Your task to perform on an android device: How much does the LG TV cost? Image 0: 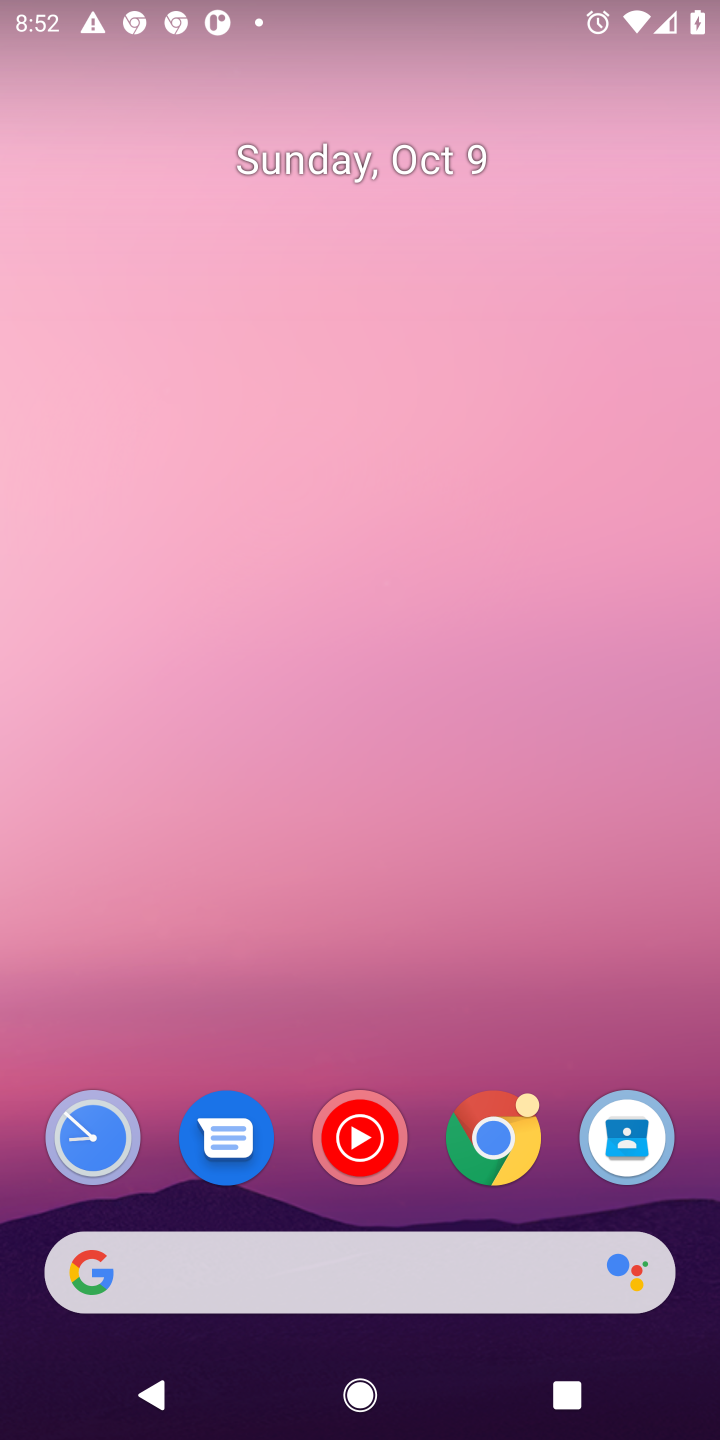
Step 0: drag from (293, 985) to (360, 475)
Your task to perform on an android device: How much does the LG TV cost? Image 1: 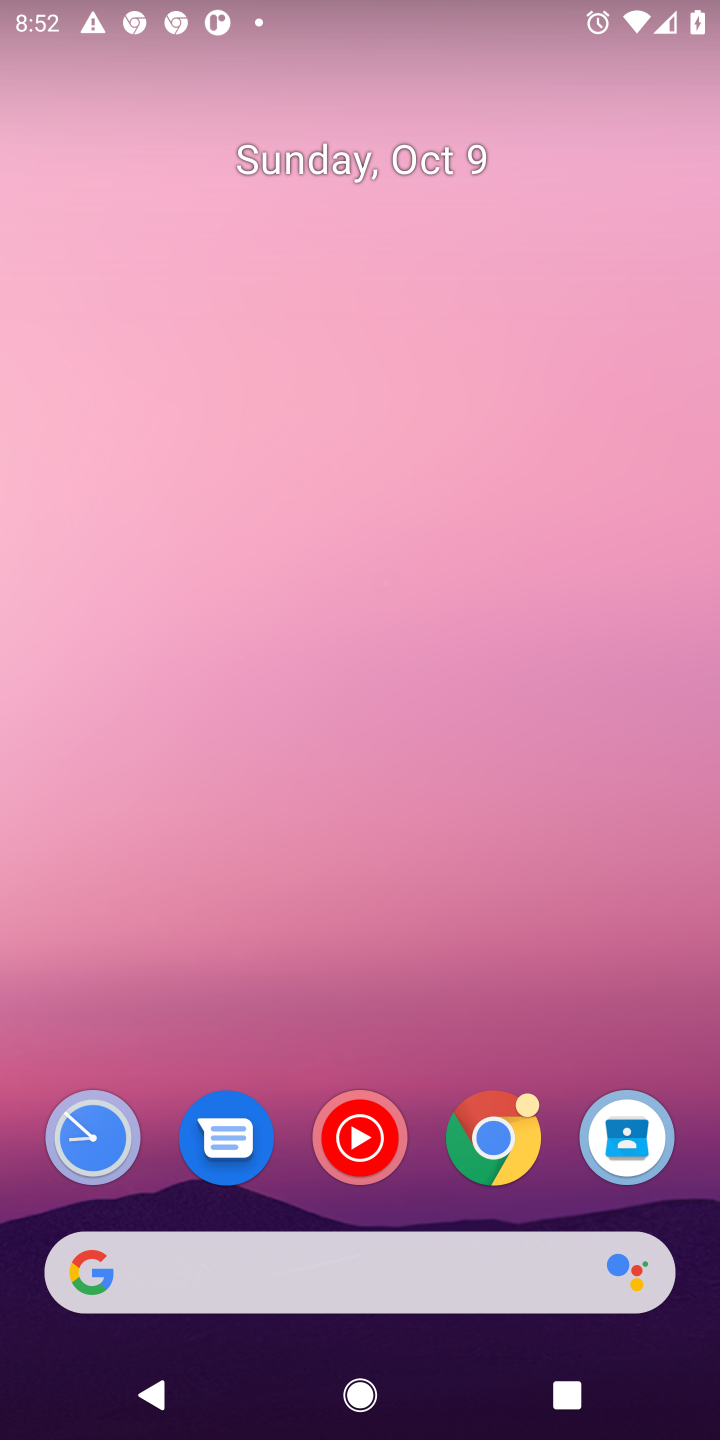
Step 1: drag from (415, 713) to (438, 417)
Your task to perform on an android device: How much does the LG TV cost? Image 2: 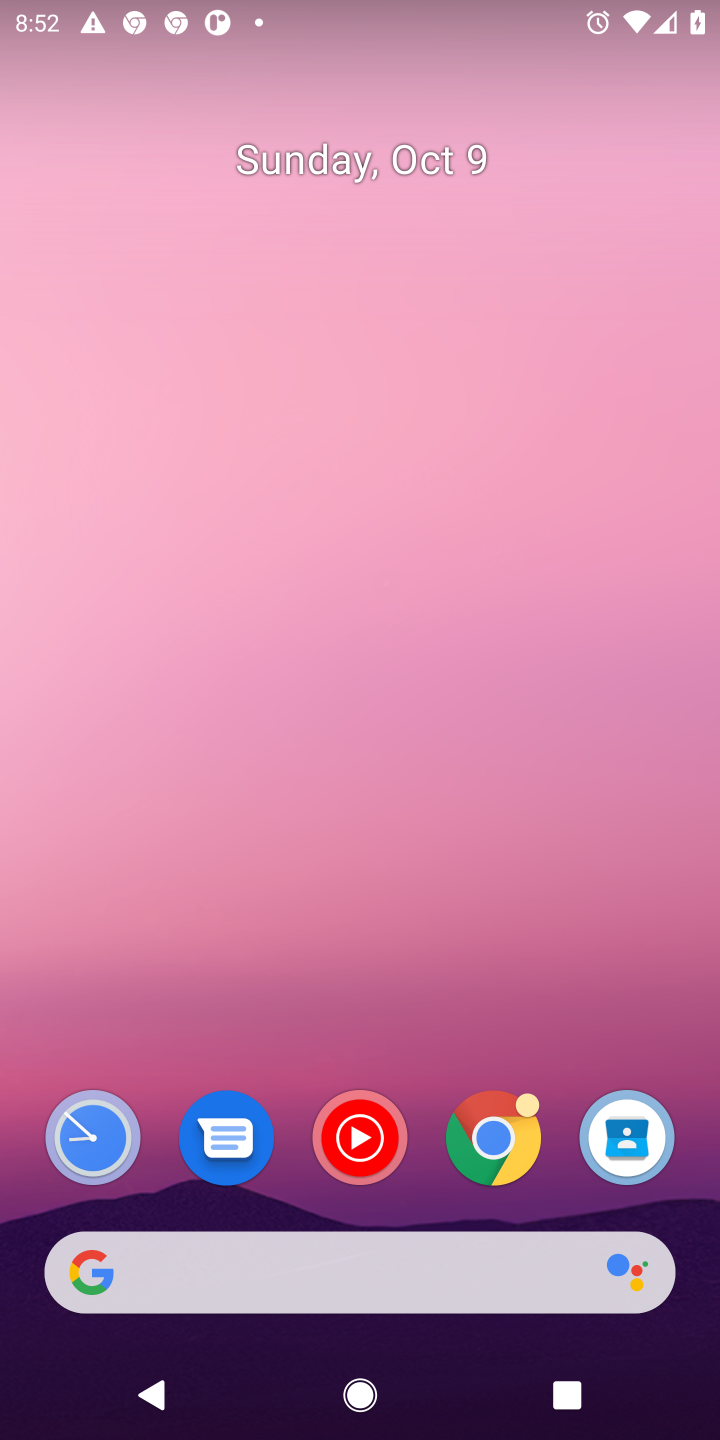
Step 2: drag from (364, 1165) to (460, 471)
Your task to perform on an android device: How much does the LG TV cost? Image 3: 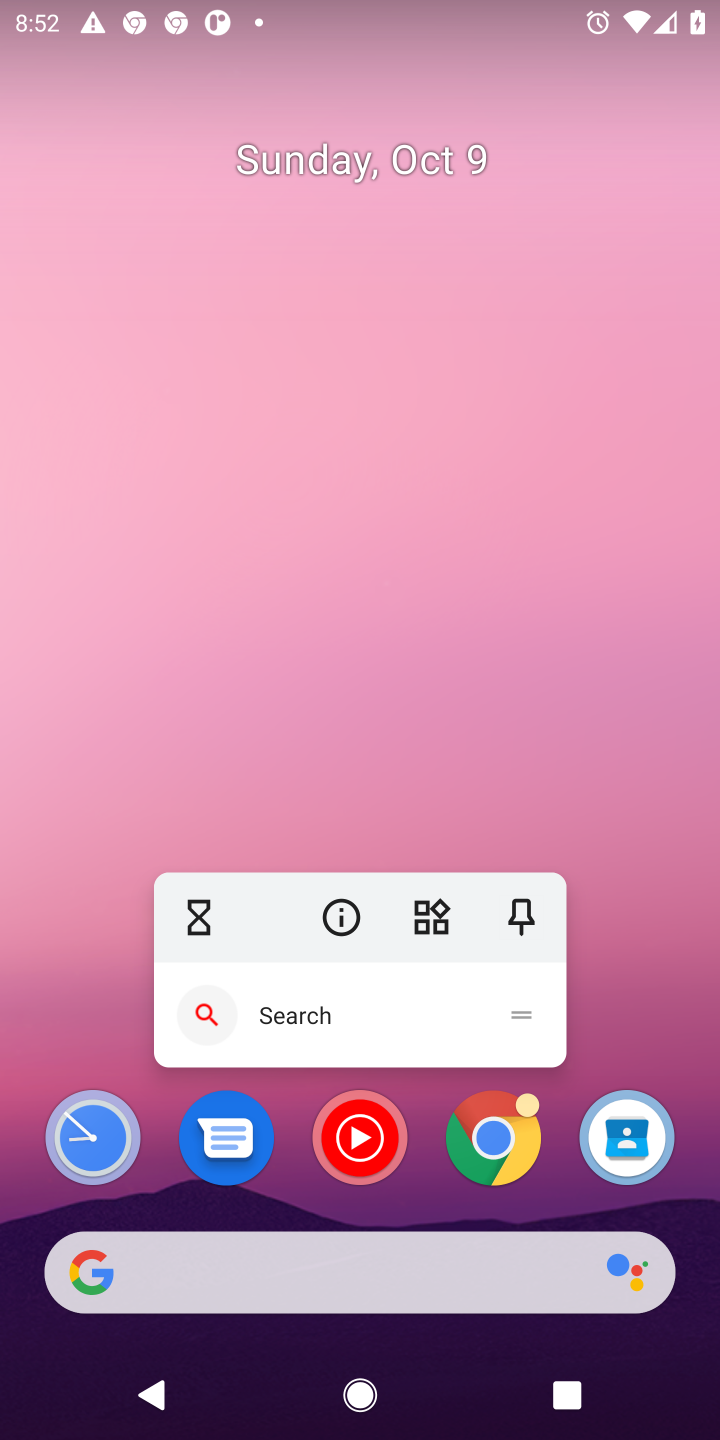
Step 3: click (322, 710)
Your task to perform on an android device: How much does the LG TV cost? Image 4: 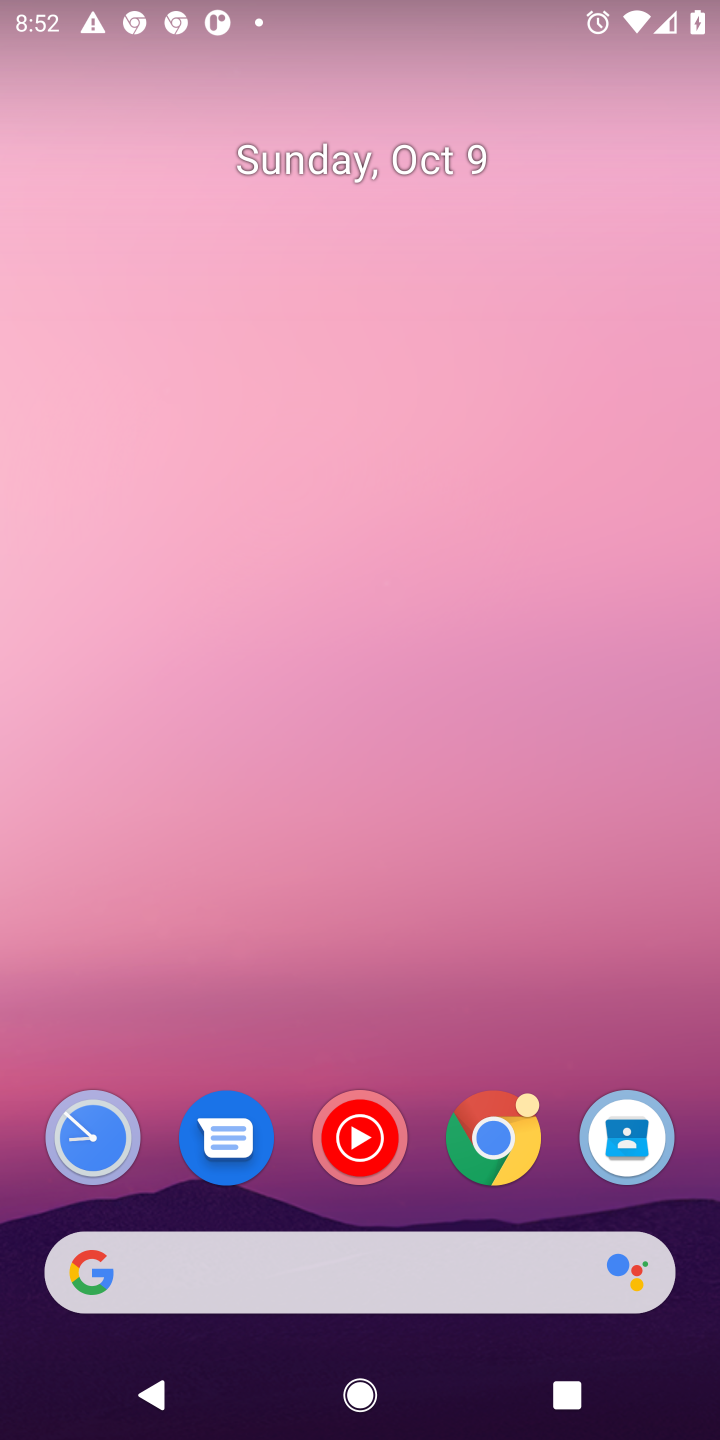
Step 4: drag from (281, 1178) to (437, 314)
Your task to perform on an android device: How much does the LG TV cost? Image 5: 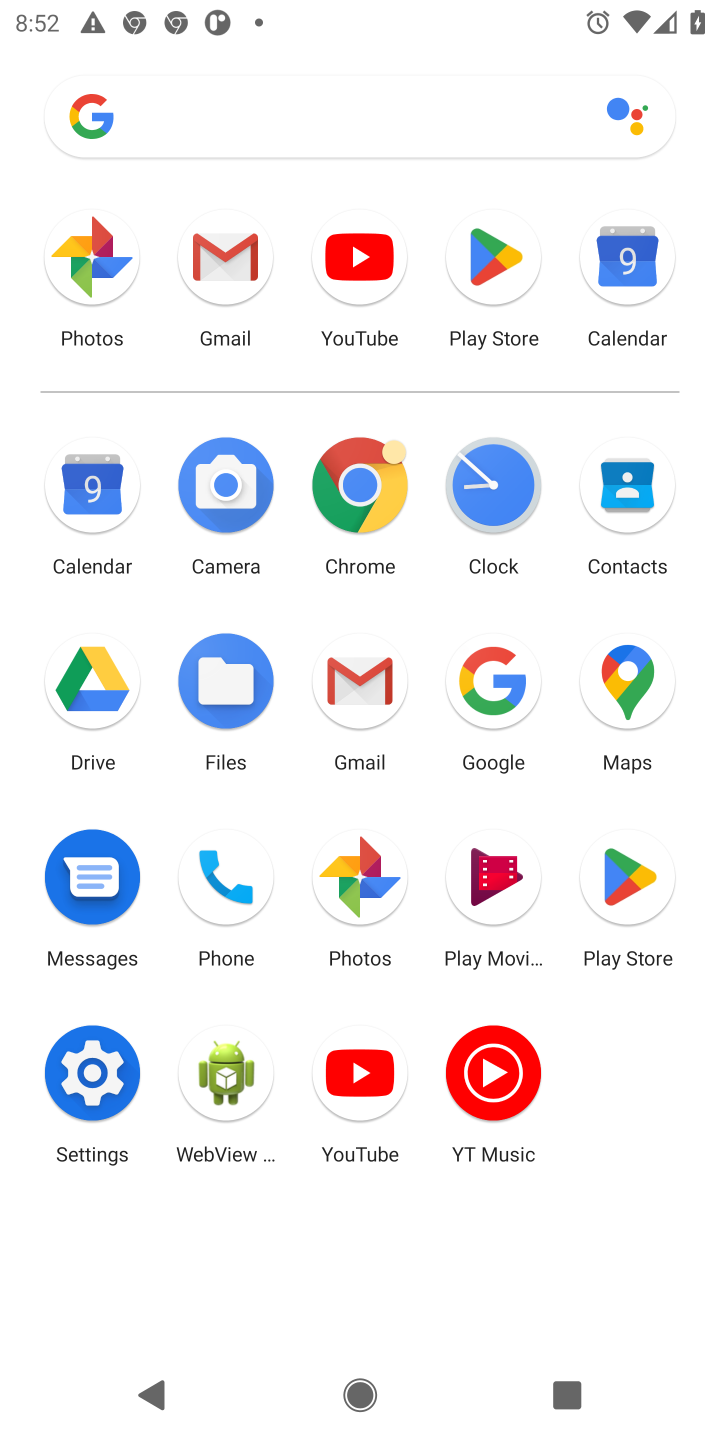
Step 5: click (482, 663)
Your task to perform on an android device: How much does the LG TV cost? Image 6: 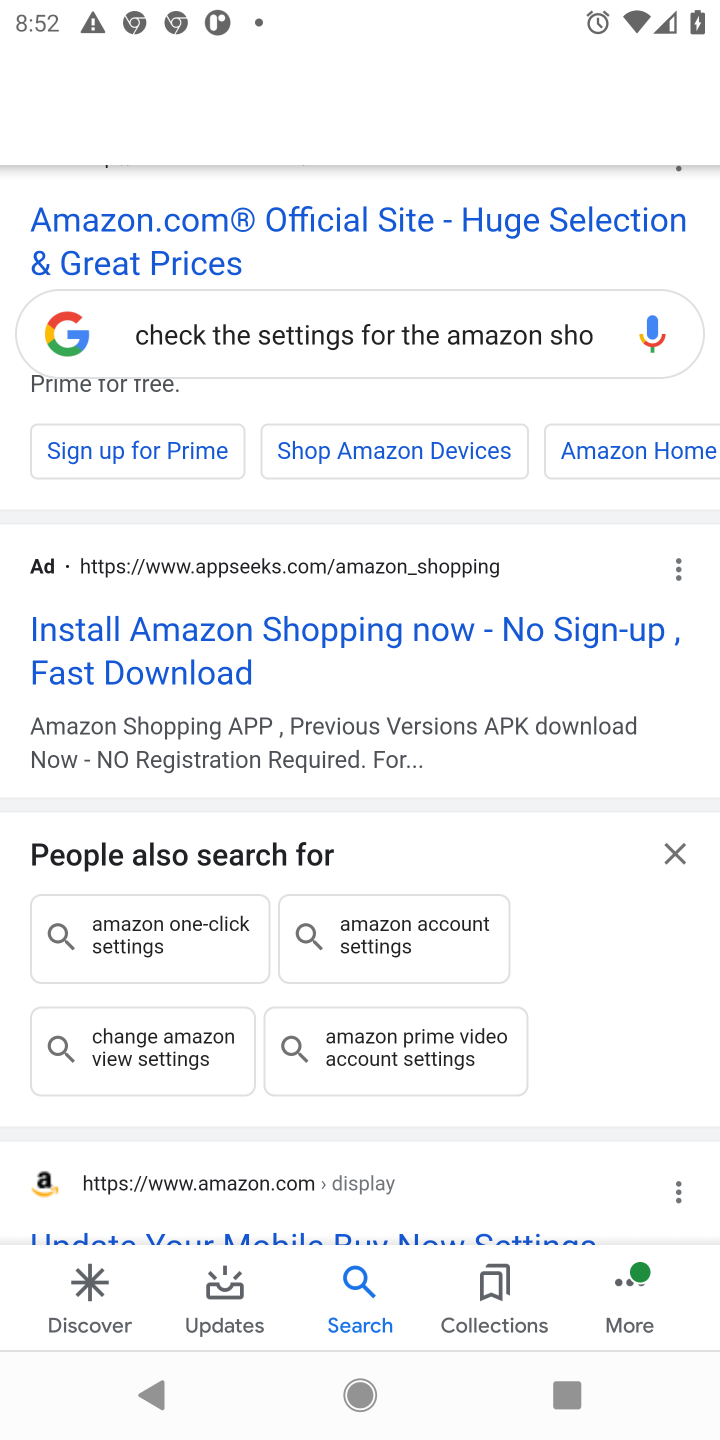
Step 6: click (411, 314)
Your task to perform on an android device: How much does the LG TV cost? Image 7: 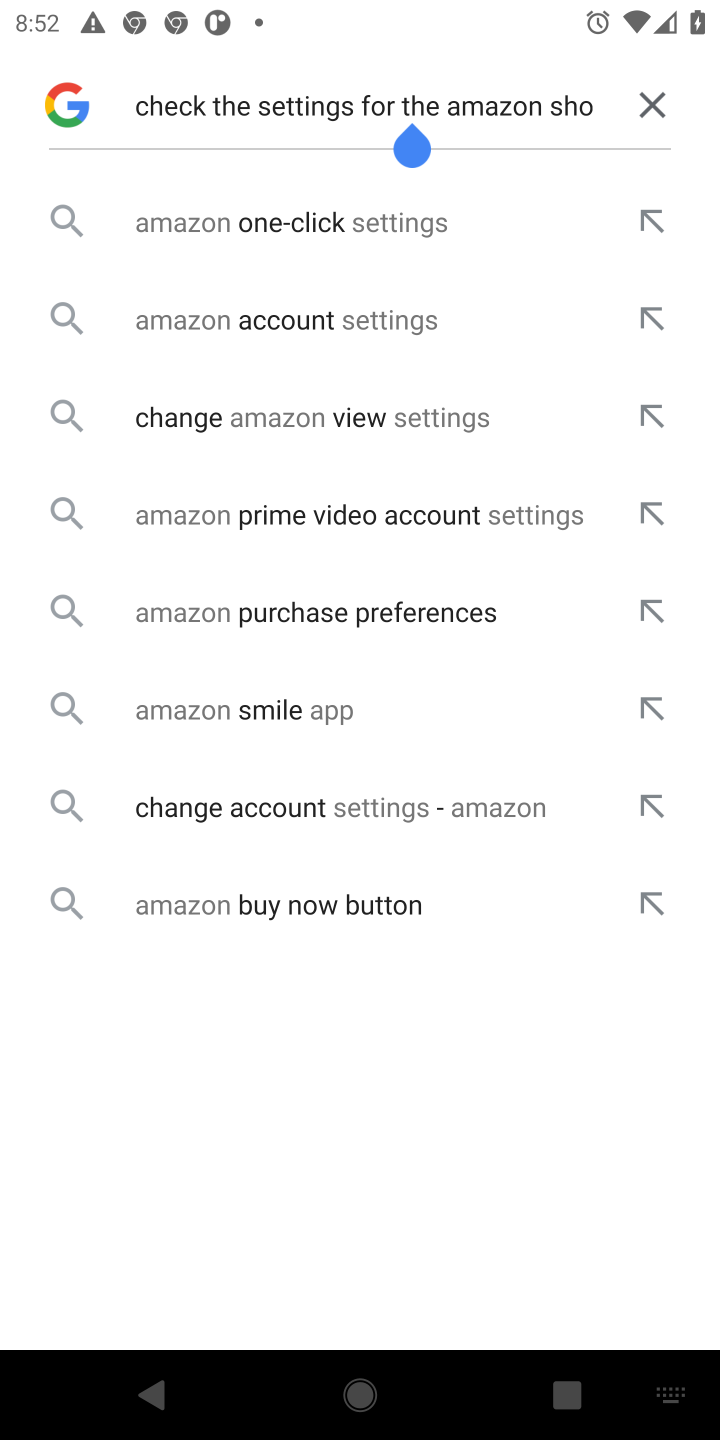
Step 7: click (641, 111)
Your task to perform on an android device: How much does the LG TV cost? Image 8: 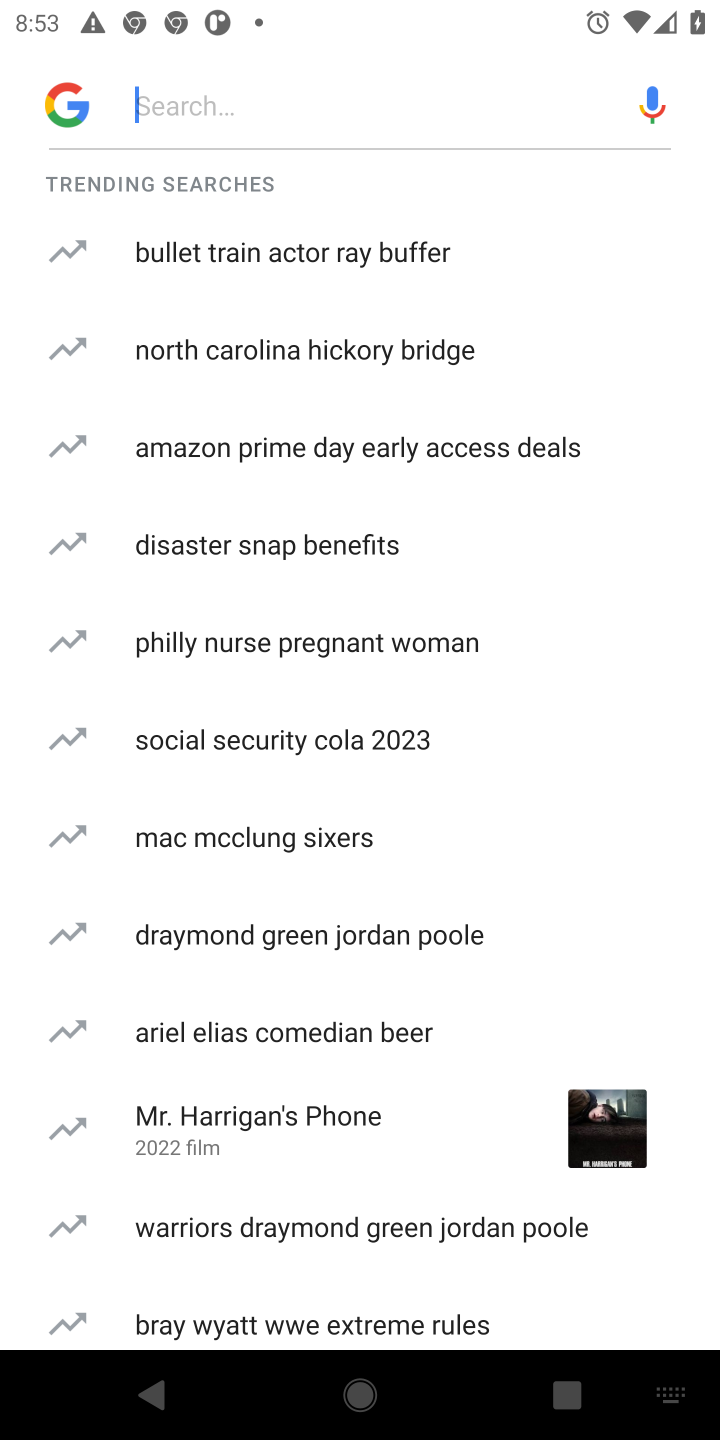
Step 8: click (366, 96)
Your task to perform on an android device: How much does the LG TV cost? Image 9: 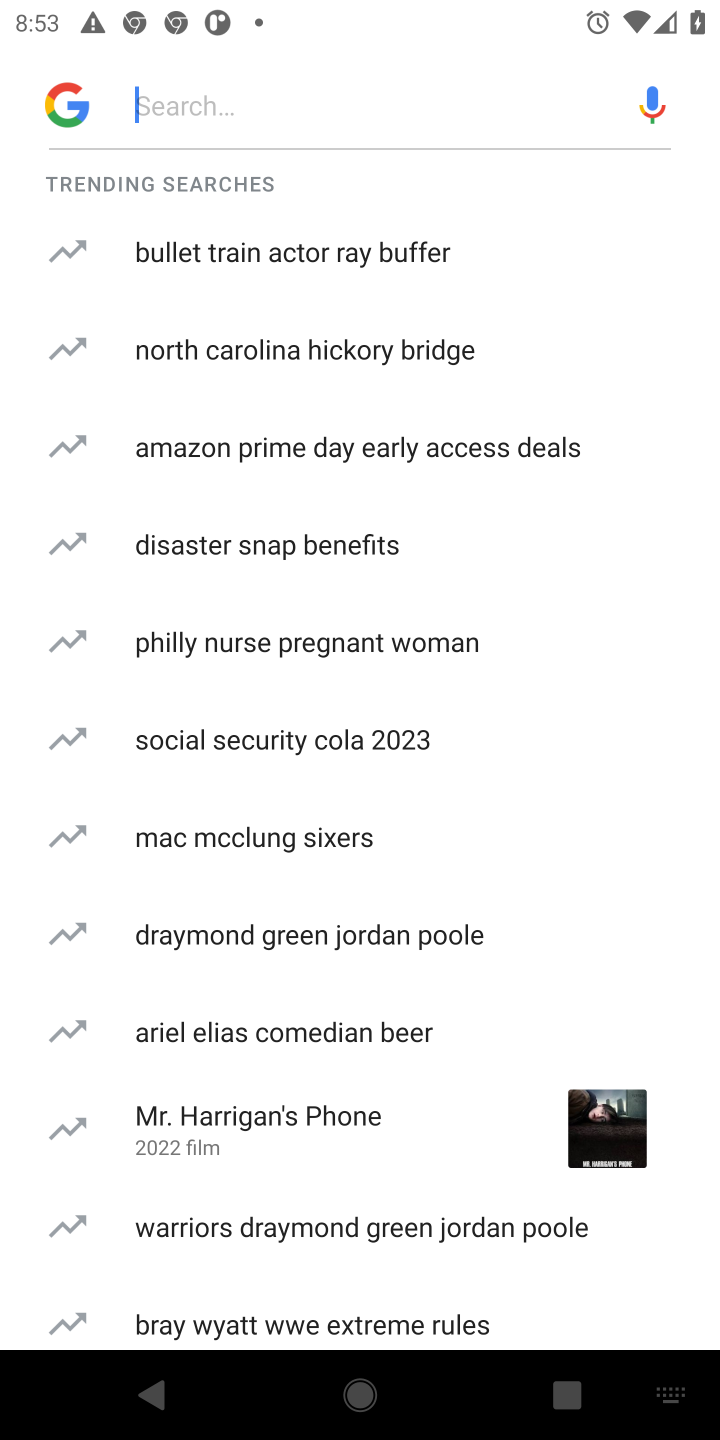
Step 9: type "How much does the LG TV cost? "
Your task to perform on an android device: How much does the LG TV cost? Image 10: 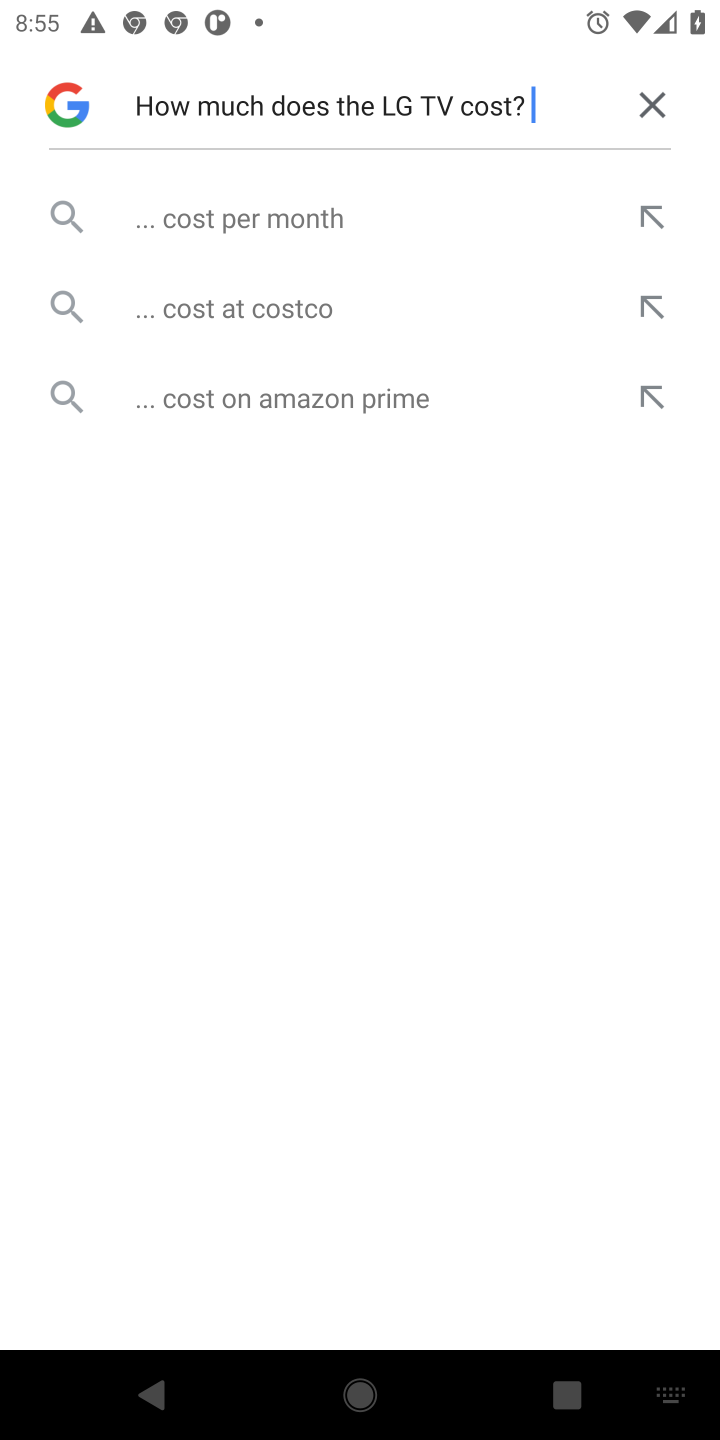
Step 10: click (274, 199)
Your task to perform on an android device: How much does the LG TV cost? Image 11: 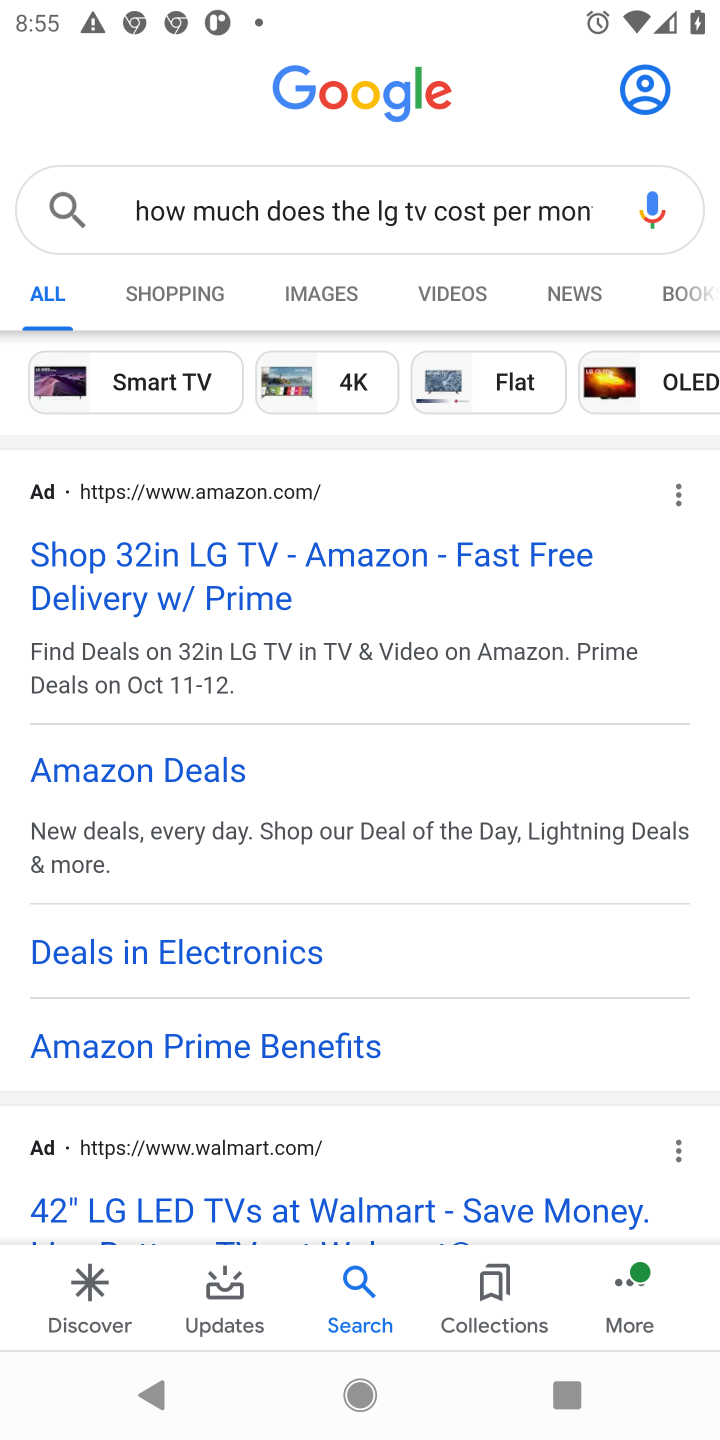
Step 11: click (212, 545)
Your task to perform on an android device: How much does the LG TV cost? Image 12: 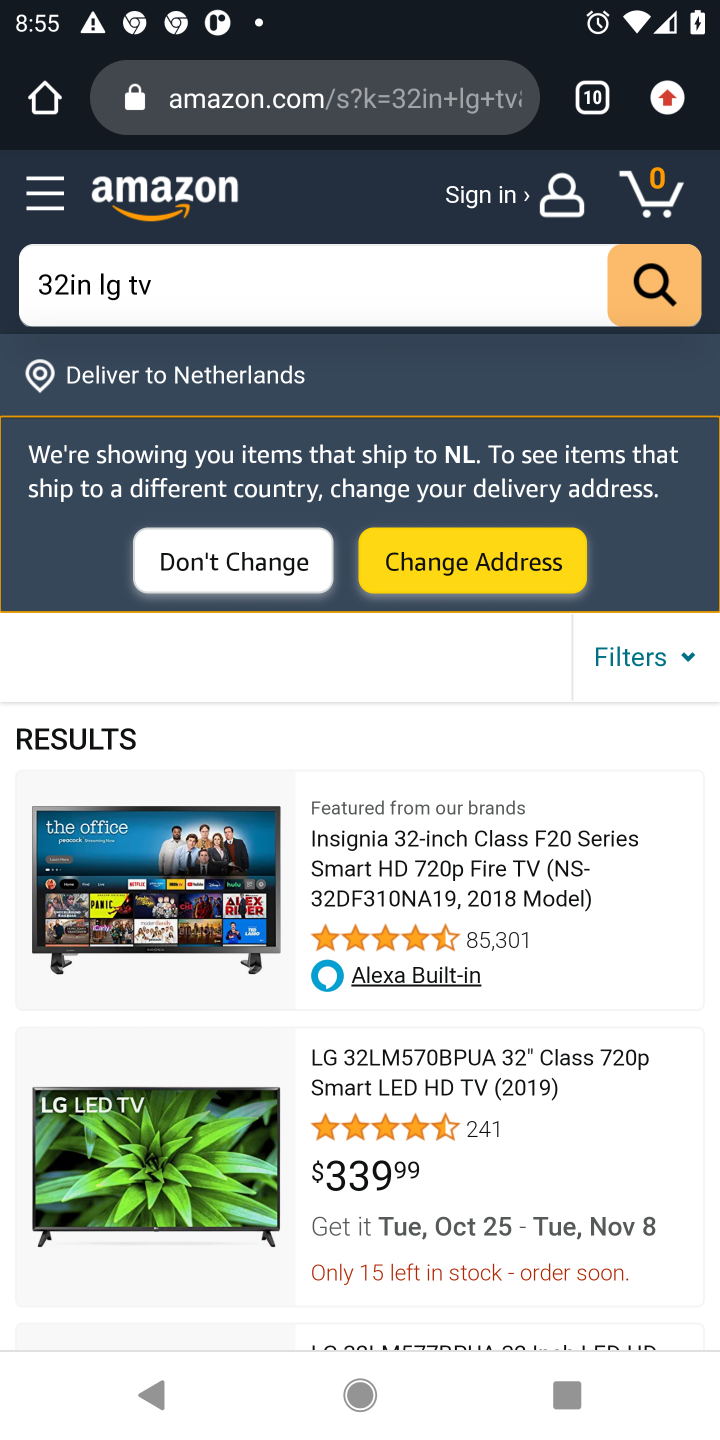
Step 12: task complete